Your task to perform on an android device: delete browsing data in the chrome app Image 0: 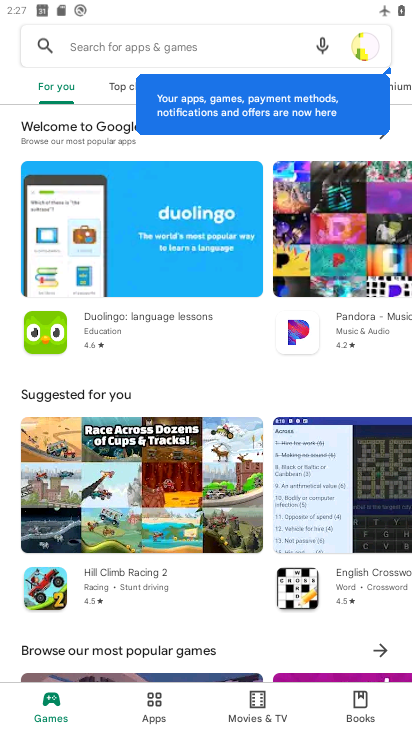
Step 0: press home button
Your task to perform on an android device: delete browsing data in the chrome app Image 1: 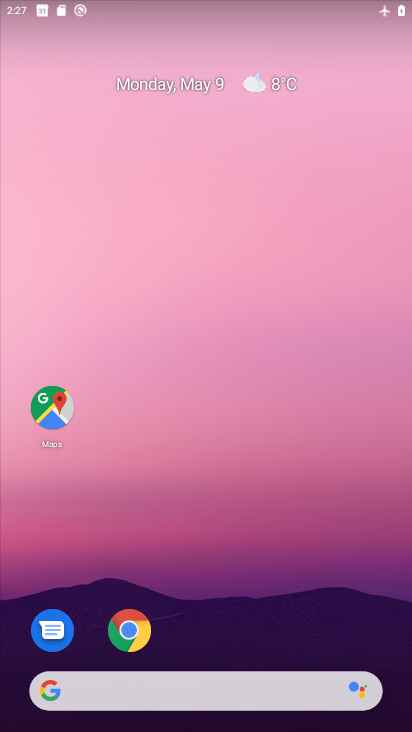
Step 1: click (146, 619)
Your task to perform on an android device: delete browsing data in the chrome app Image 2: 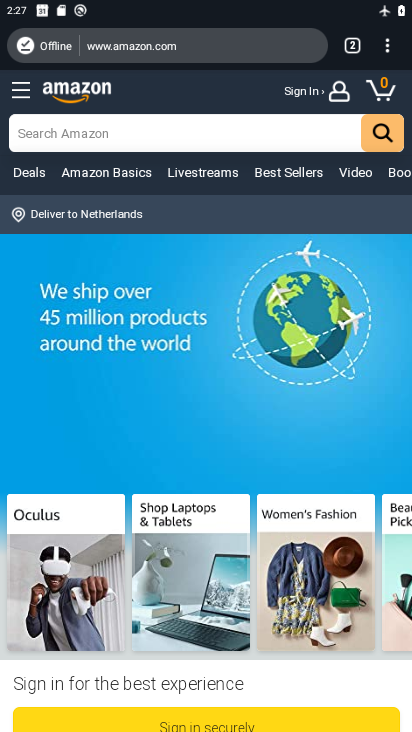
Step 2: click (396, 47)
Your task to perform on an android device: delete browsing data in the chrome app Image 3: 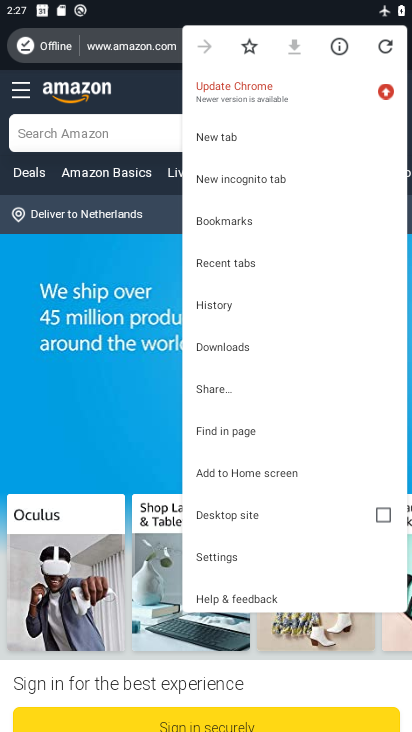
Step 3: click (232, 298)
Your task to perform on an android device: delete browsing data in the chrome app Image 4: 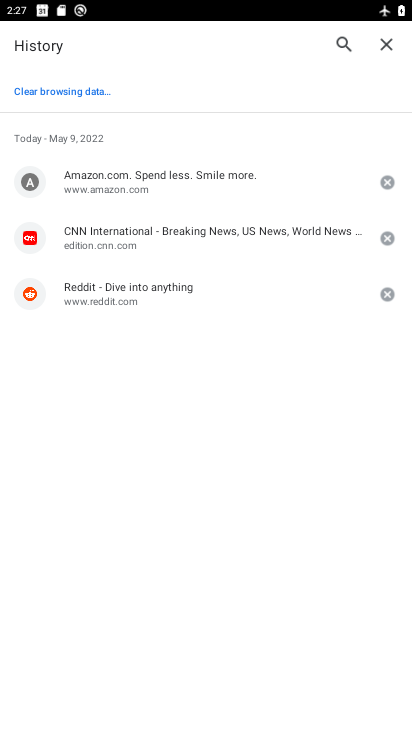
Step 4: click (40, 102)
Your task to perform on an android device: delete browsing data in the chrome app Image 5: 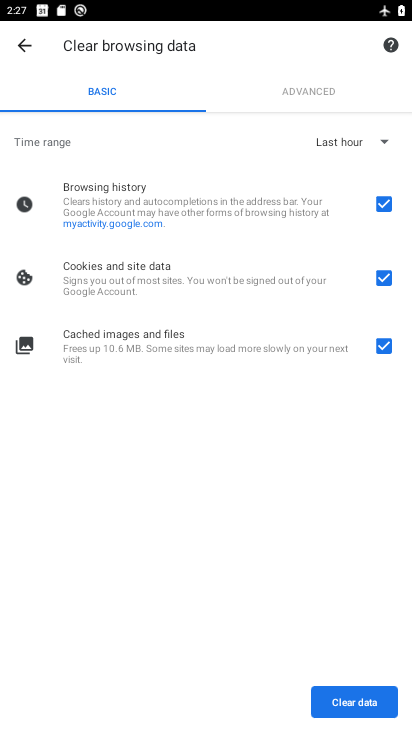
Step 5: click (382, 696)
Your task to perform on an android device: delete browsing data in the chrome app Image 6: 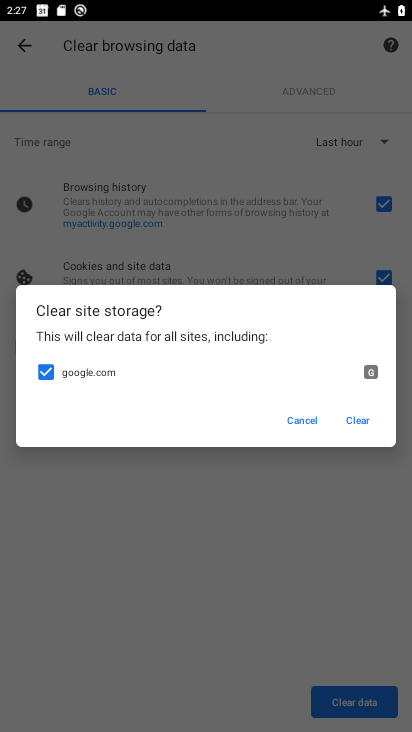
Step 6: click (362, 421)
Your task to perform on an android device: delete browsing data in the chrome app Image 7: 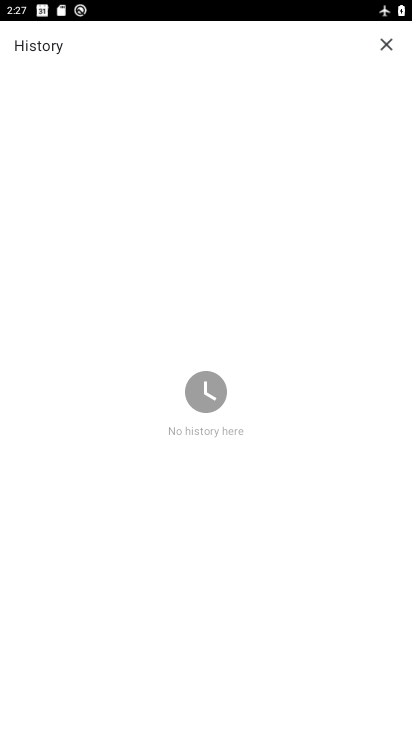
Step 7: task complete